Your task to perform on an android device: set an alarm Image 0: 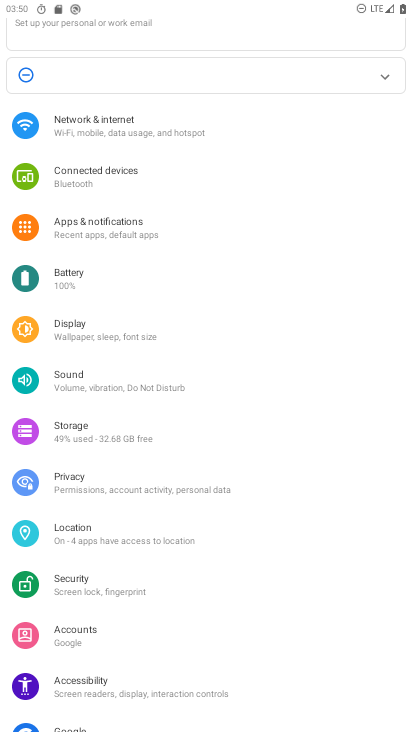
Step 0: press home button
Your task to perform on an android device: set an alarm Image 1: 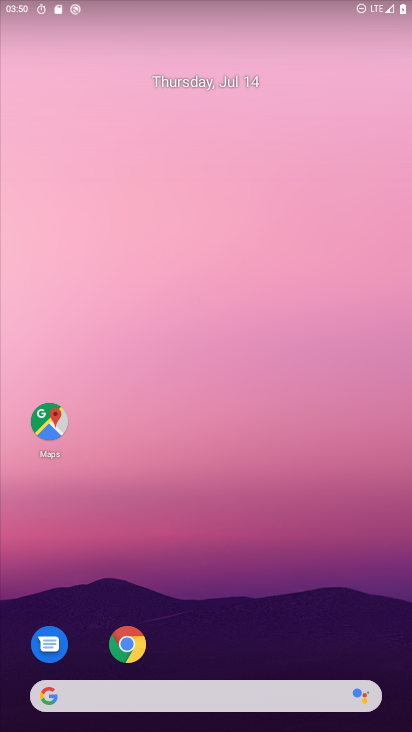
Step 1: drag from (300, 578) to (260, 91)
Your task to perform on an android device: set an alarm Image 2: 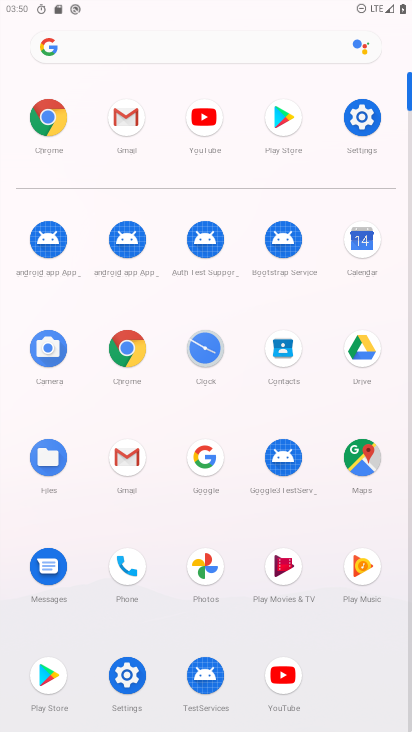
Step 2: click (208, 345)
Your task to perform on an android device: set an alarm Image 3: 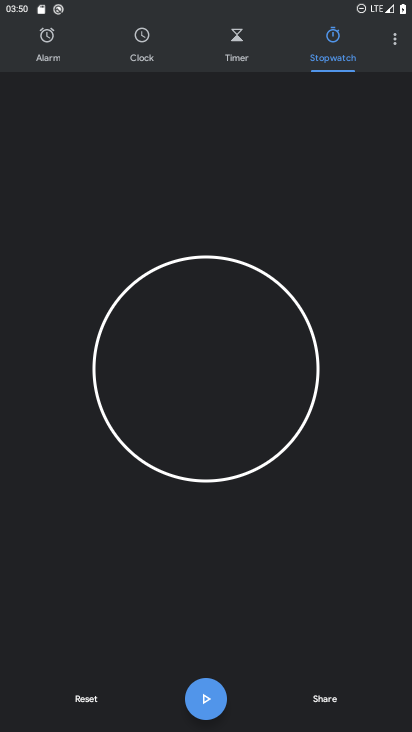
Step 3: click (49, 50)
Your task to perform on an android device: set an alarm Image 4: 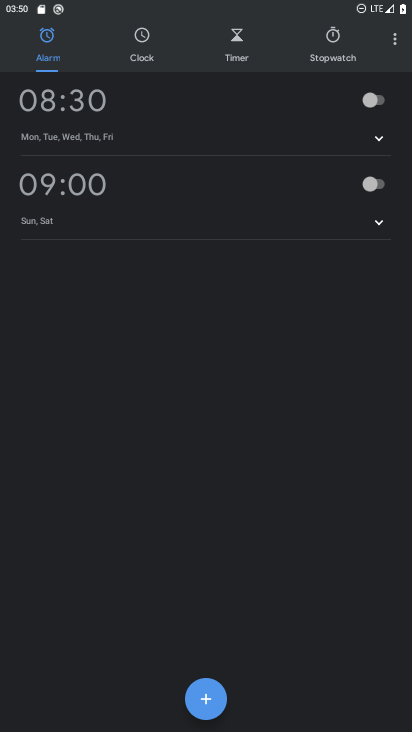
Step 4: click (215, 700)
Your task to perform on an android device: set an alarm Image 5: 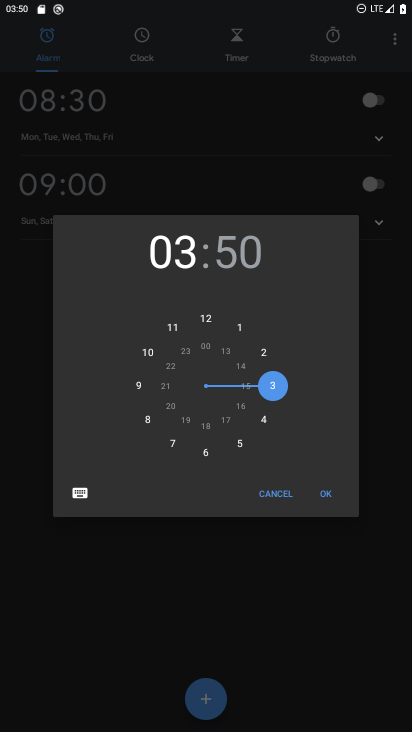
Step 5: click (326, 497)
Your task to perform on an android device: set an alarm Image 6: 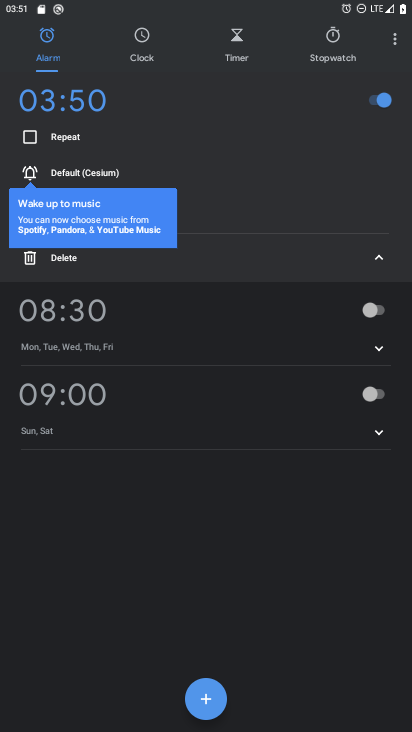
Step 6: task complete